Your task to perform on an android device: change the clock style Image 0: 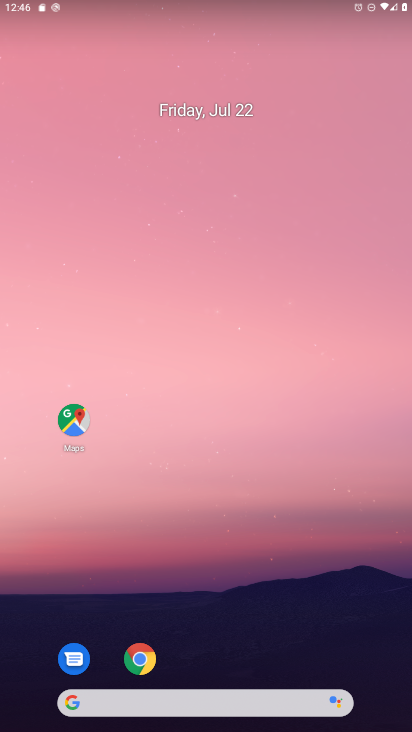
Step 0: drag from (265, 703) to (271, 135)
Your task to perform on an android device: change the clock style Image 1: 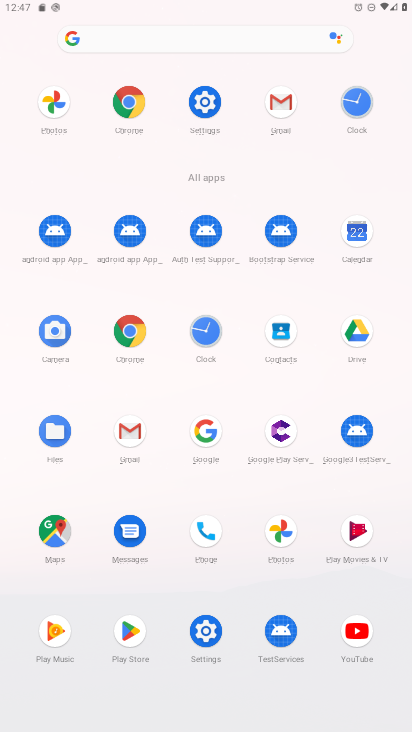
Step 1: click (204, 337)
Your task to perform on an android device: change the clock style Image 2: 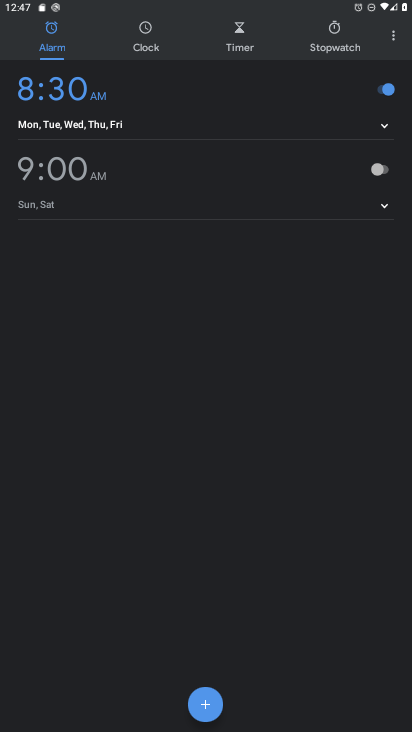
Step 2: click (390, 45)
Your task to perform on an android device: change the clock style Image 3: 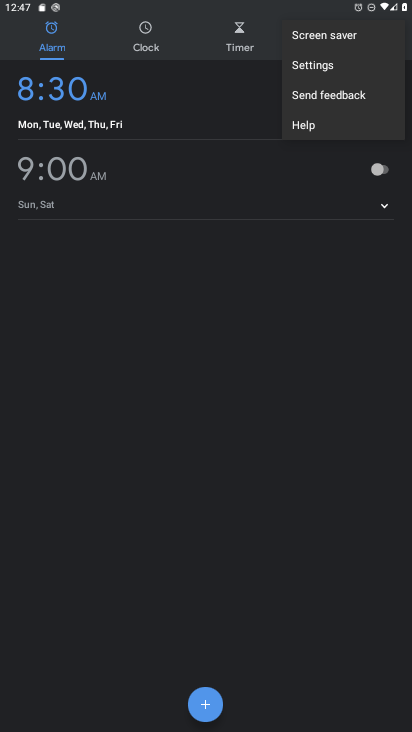
Step 3: click (326, 65)
Your task to perform on an android device: change the clock style Image 4: 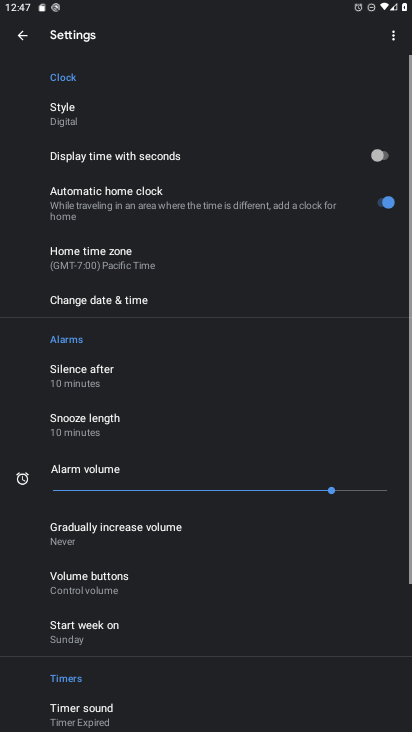
Step 4: click (110, 107)
Your task to perform on an android device: change the clock style Image 5: 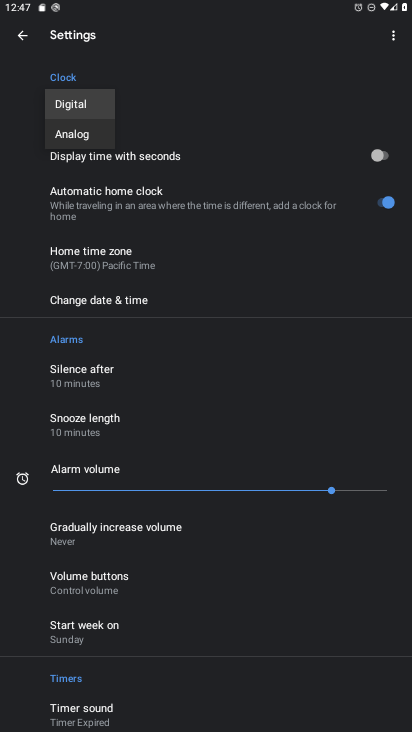
Step 5: click (70, 124)
Your task to perform on an android device: change the clock style Image 6: 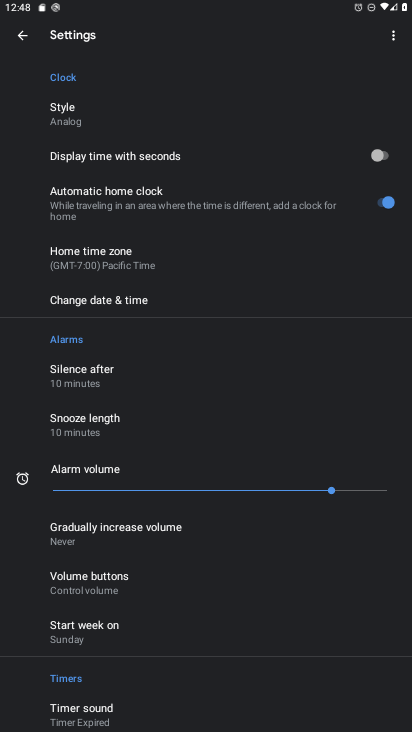
Step 6: task complete